Your task to perform on an android device: Do I have any events today? Image 0: 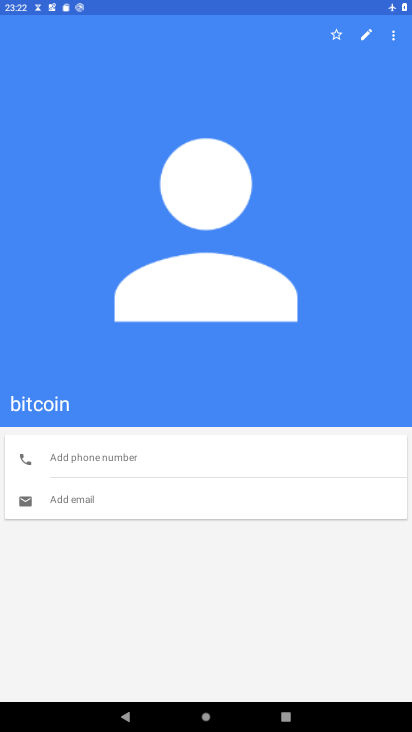
Step 0: press home button
Your task to perform on an android device: Do I have any events today? Image 1: 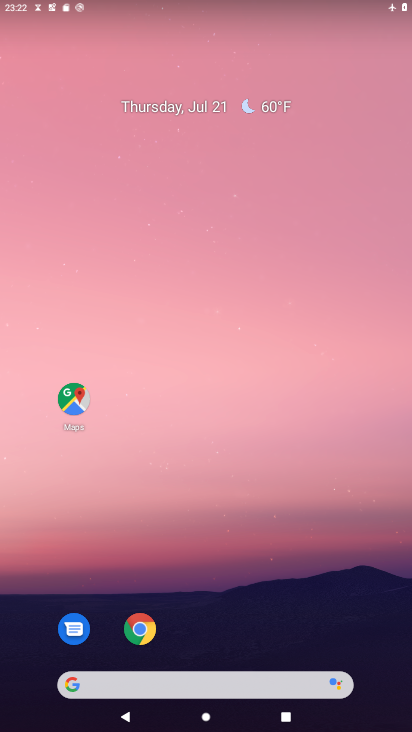
Step 1: drag from (260, 609) to (235, 5)
Your task to perform on an android device: Do I have any events today? Image 2: 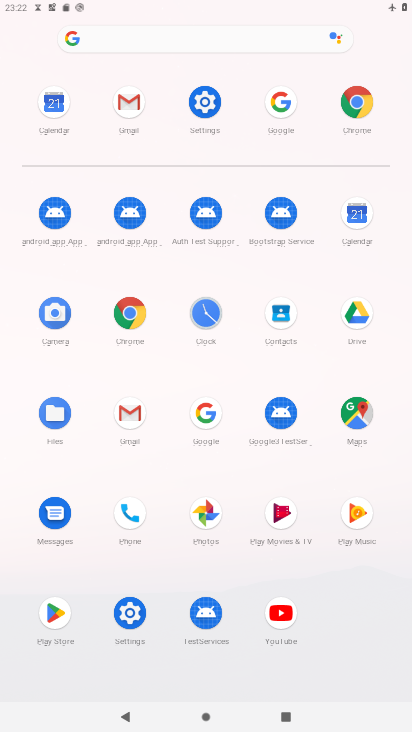
Step 2: click (360, 211)
Your task to perform on an android device: Do I have any events today? Image 3: 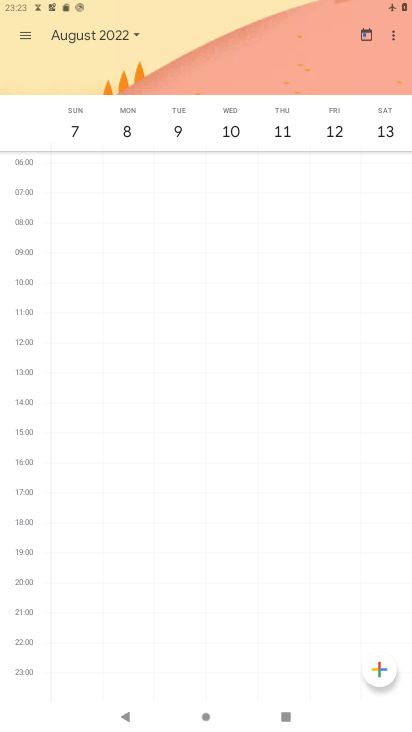
Step 3: click (34, 31)
Your task to perform on an android device: Do I have any events today? Image 4: 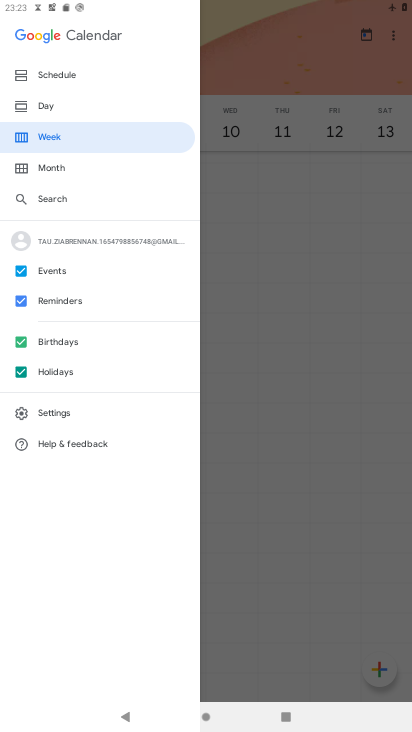
Step 4: click (61, 165)
Your task to perform on an android device: Do I have any events today? Image 5: 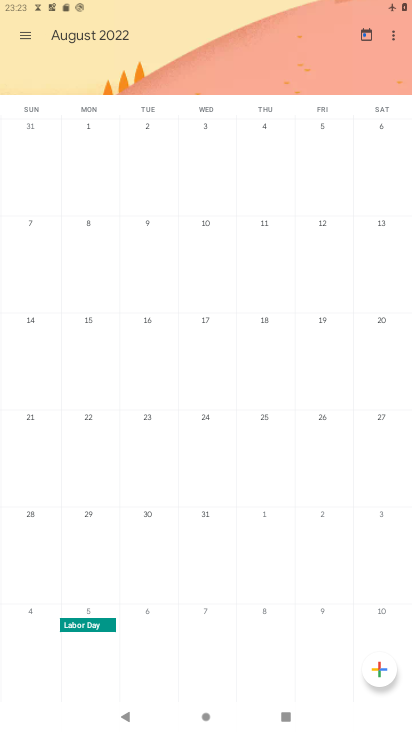
Step 5: drag from (33, 215) to (405, 284)
Your task to perform on an android device: Do I have any events today? Image 6: 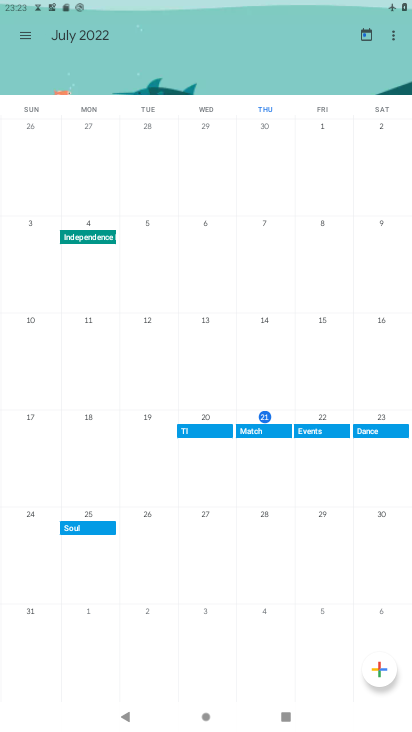
Step 6: click (324, 426)
Your task to perform on an android device: Do I have any events today? Image 7: 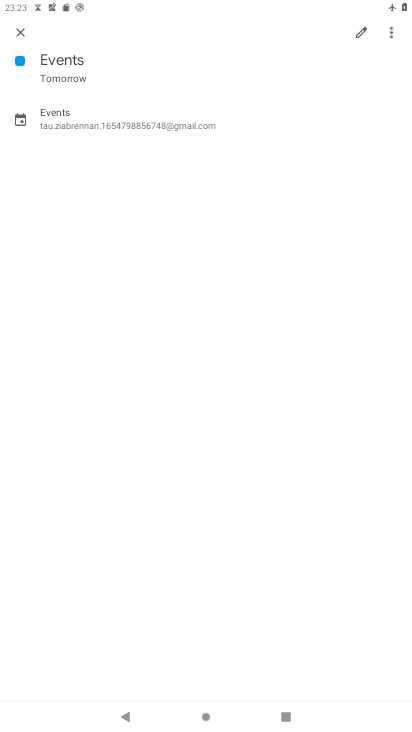
Step 7: task complete